Your task to perform on an android device: Go to notification settings Image 0: 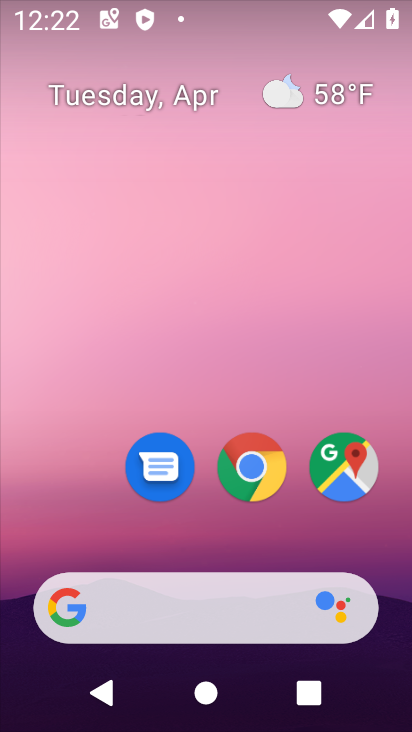
Step 0: drag from (208, 10) to (253, 664)
Your task to perform on an android device: Go to notification settings Image 1: 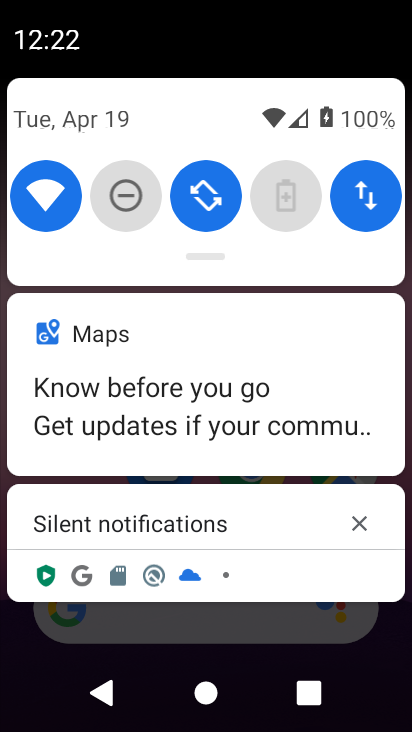
Step 1: drag from (269, 107) to (305, 714)
Your task to perform on an android device: Go to notification settings Image 2: 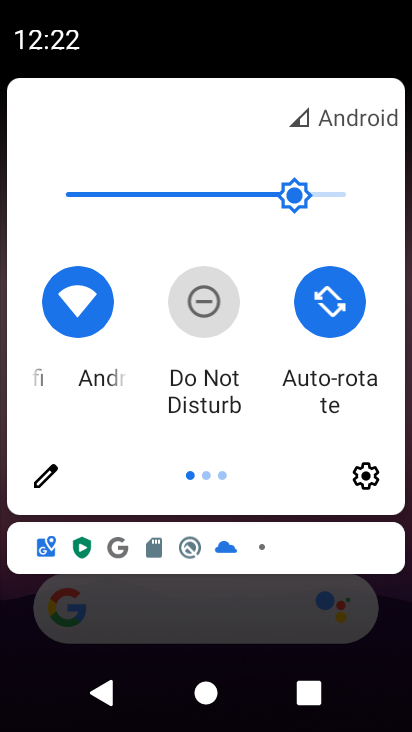
Step 2: click (376, 461)
Your task to perform on an android device: Go to notification settings Image 3: 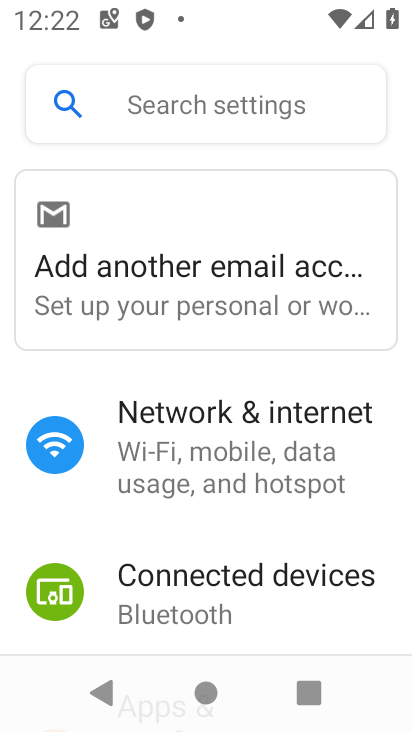
Step 3: drag from (152, 561) to (216, 28)
Your task to perform on an android device: Go to notification settings Image 4: 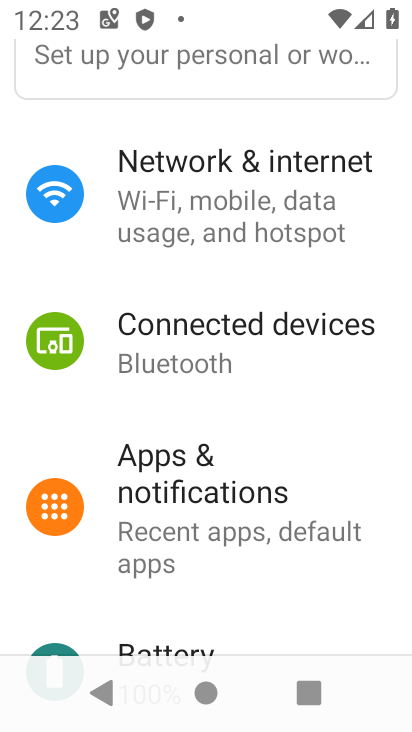
Step 4: click (182, 479)
Your task to perform on an android device: Go to notification settings Image 5: 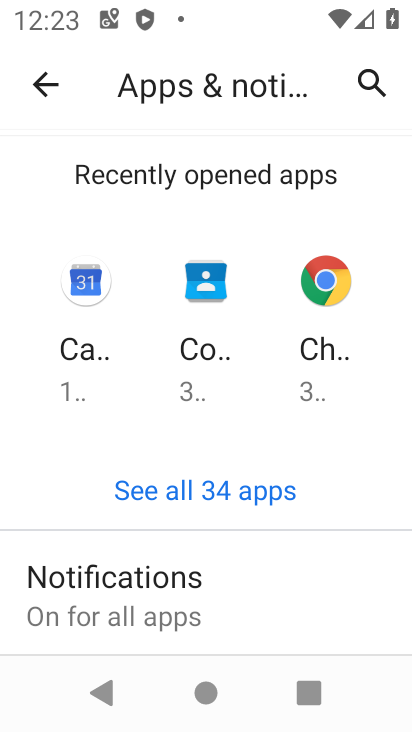
Step 5: task complete